Your task to perform on an android device: Open Google Maps and go to "Timeline" Image 0: 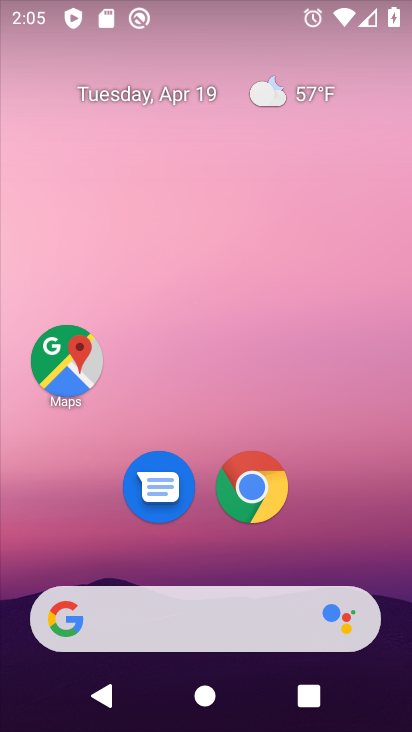
Step 0: drag from (346, 518) to (359, 118)
Your task to perform on an android device: Open Google Maps and go to "Timeline" Image 1: 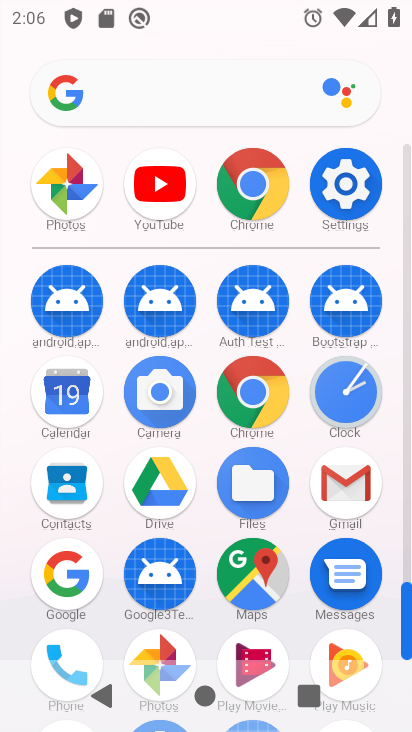
Step 1: click (232, 562)
Your task to perform on an android device: Open Google Maps and go to "Timeline" Image 2: 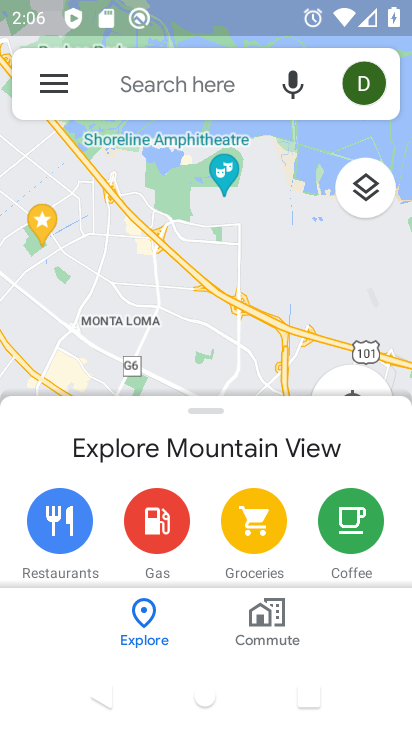
Step 2: click (49, 84)
Your task to perform on an android device: Open Google Maps and go to "Timeline" Image 3: 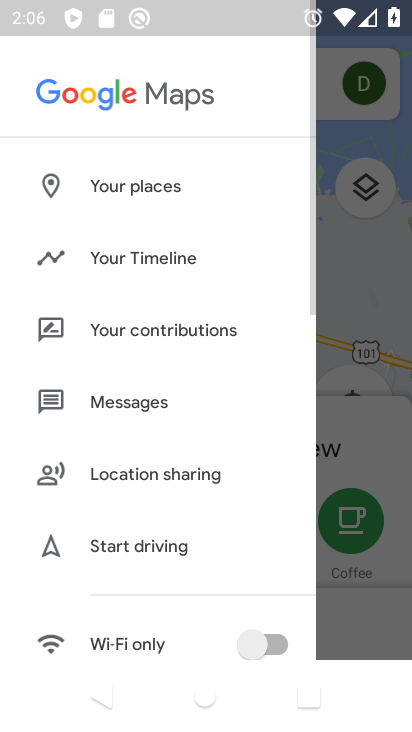
Step 3: click (141, 263)
Your task to perform on an android device: Open Google Maps and go to "Timeline" Image 4: 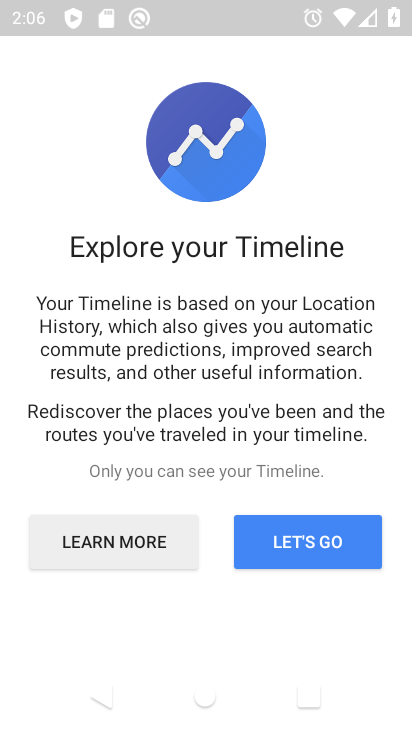
Step 4: click (308, 547)
Your task to perform on an android device: Open Google Maps and go to "Timeline" Image 5: 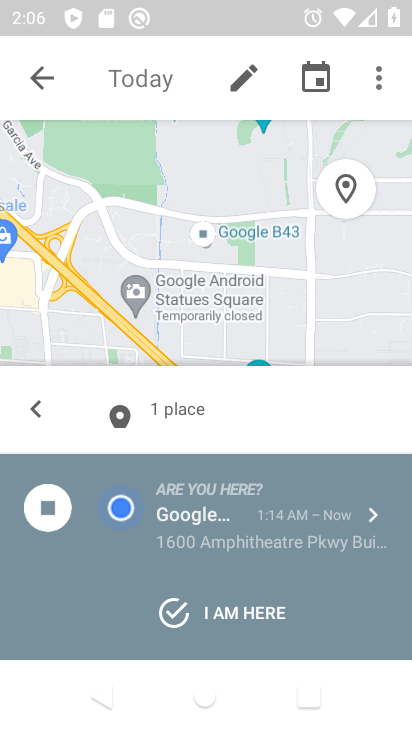
Step 5: task complete